Your task to perform on an android device: find photos in the google photos app Image 0: 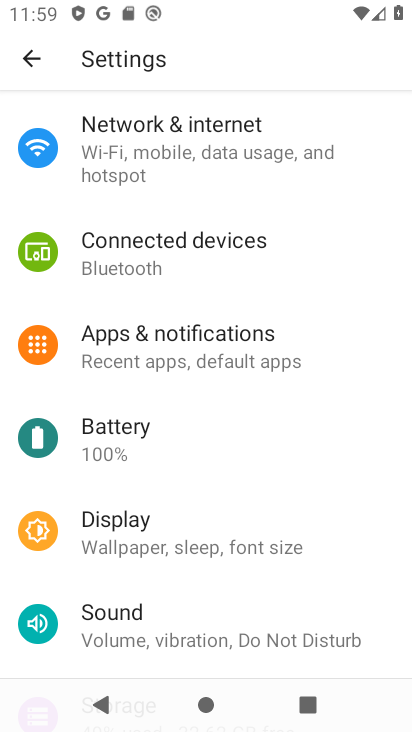
Step 0: press home button
Your task to perform on an android device: find photos in the google photos app Image 1: 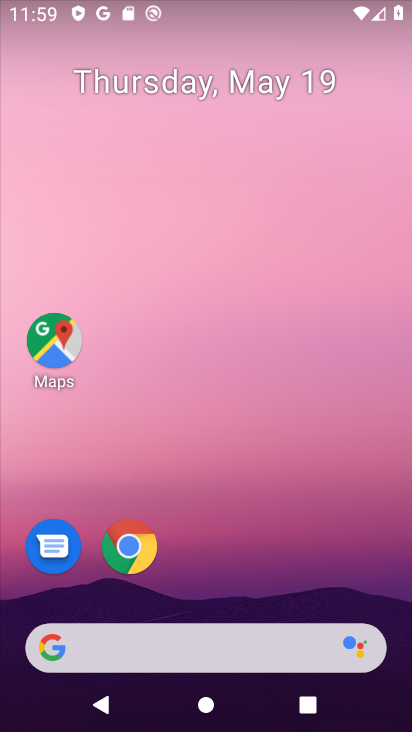
Step 1: drag from (134, 555) to (173, 508)
Your task to perform on an android device: find photos in the google photos app Image 2: 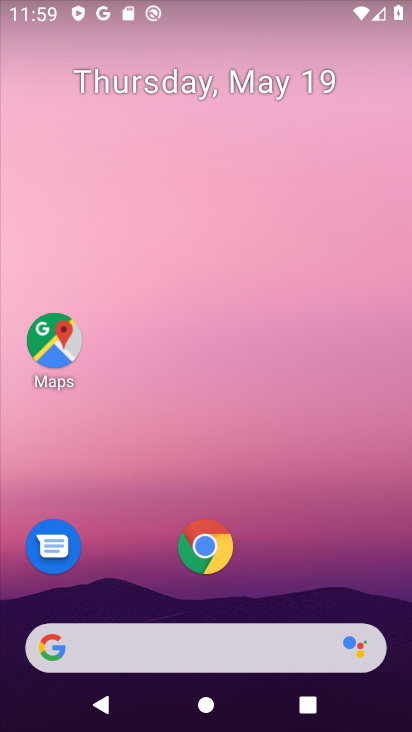
Step 2: drag from (299, 535) to (318, 123)
Your task to perform on an android device: find photos in the google photos app Image 3: 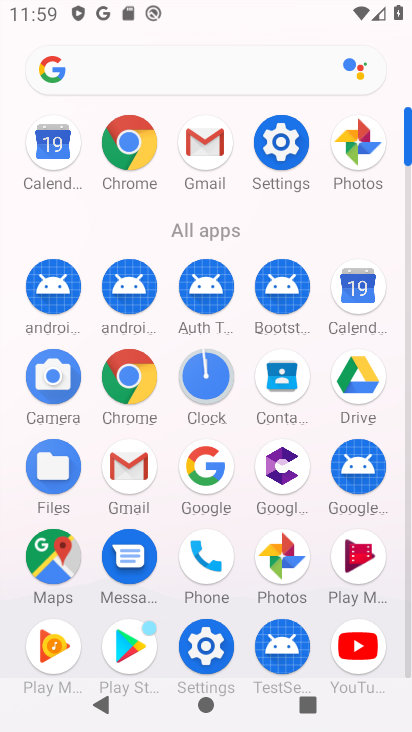
Step 3: click (281, 560)
Your task to perform on an android device: find photos in the google photos app Image 4: 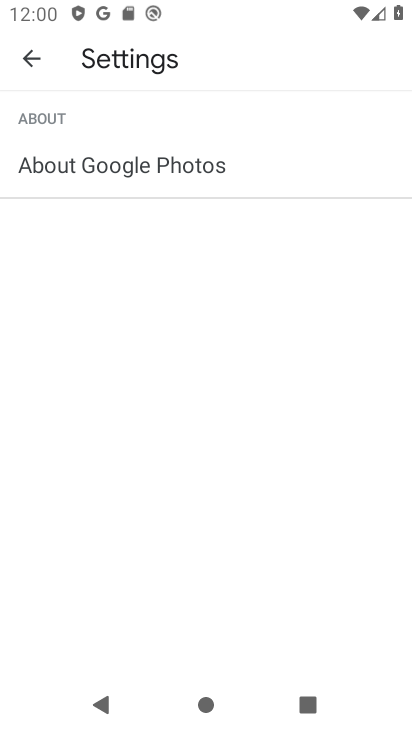
Step 4: click (36, 65)
Your task to perform on an android device: find photos in the google photos app Image 5: 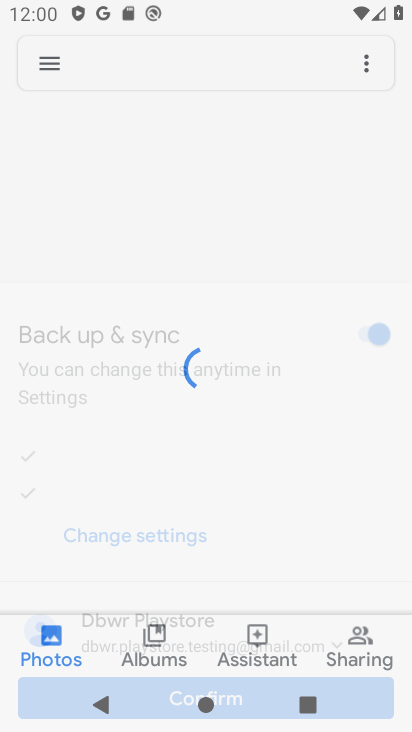
Step 5: click (382, 84)
Your task to perform on an android device: find photos in the google photos app Image 6: 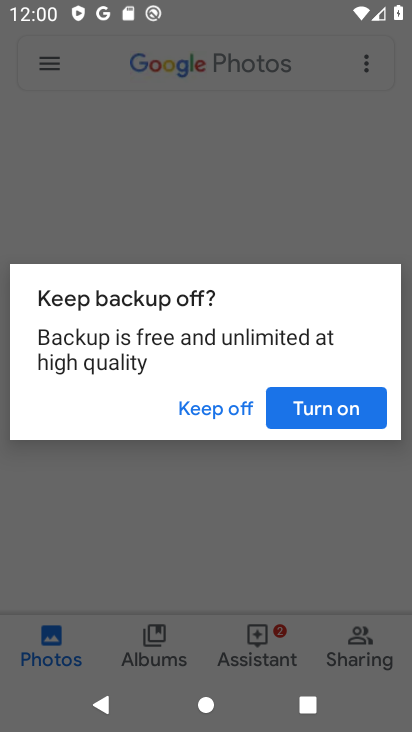
Step 6: click (235, 403)
Your task to perform on an android device: find photos in the google photos app Image 7: 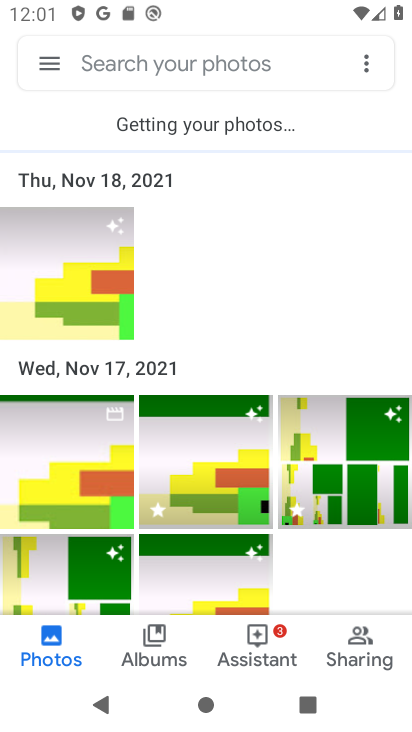
Step 7: task complete